Your task to perform on an android device: open app "Flipkart Online Shopping App" (install if not already installed) and enter user name: "fostered@gmail.com" and password: "negotiated" Image 0: 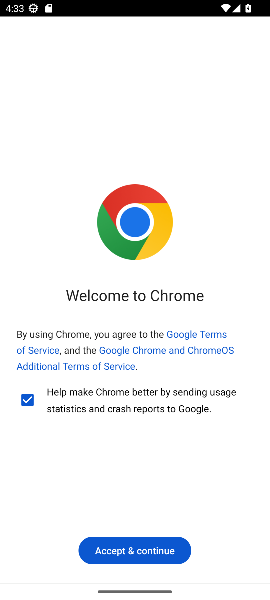
Step 0: press home button
Your task to perform on an android device: open app "Flipkart Online Shopping App" (install if not already installed) and enter user name: "fostered@gmail.com" and password: "negotiated" Image 1: 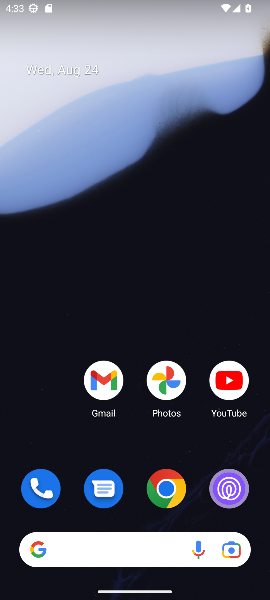
Step 1: drag from (138, 509) to (157, 55)
Your task to perform on an android device: open app "Flipkart Online Shopping App" (install if not already installed) and enter user name: "fostered@gmail.com" and password: "negotiated" Image 2: 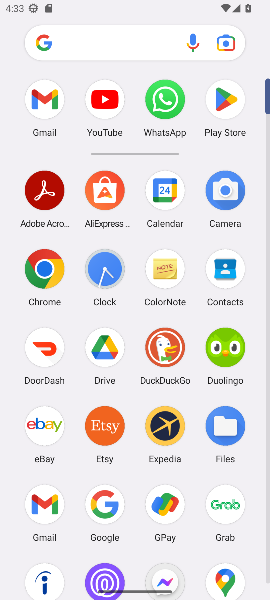
Step 2: click (223, 90)
Your task to perform on an android device: open app "Flipkart Online Shopping App" (install if not already installed) and enter user name: "fostered@gmail.com" and password: "negotiated" Image 3: 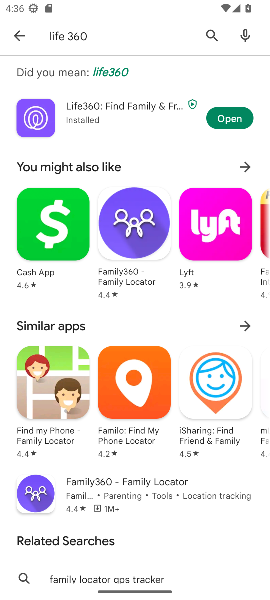
Step 3: click (216, 30)
Your task to perform on an android device: open app "Flipkart Online Shopping App" (install if not already installed) and enter user name: "fostered@gmail.com" and password: "negotiated" Image 4: 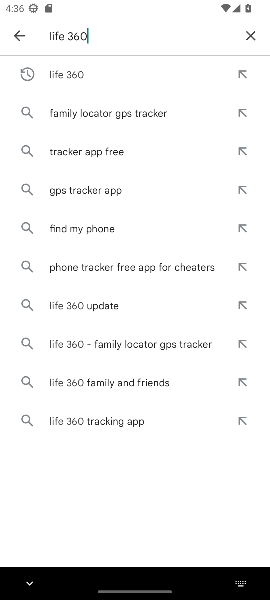
Step 4: click (244, 37)
Your task to perform on an android device: open app "Flipkart Online Shopping App" (install if not already installed) and enter user name: "fostered@gmail.com" and password: "negotiated" Image 5: 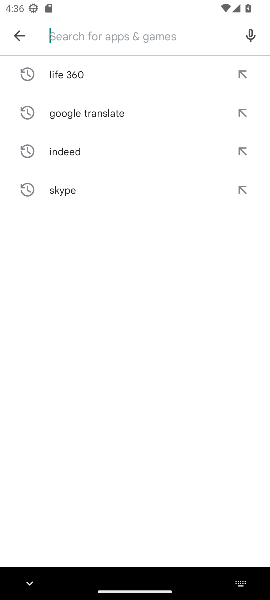
Step 5: type "flipkart"
Your task to perform on an android device: open app "Flipkart Online Shopping App" (install if not already installed) and enter user name: "fostered@gmail.com" and password: "negotiated" Image 6: 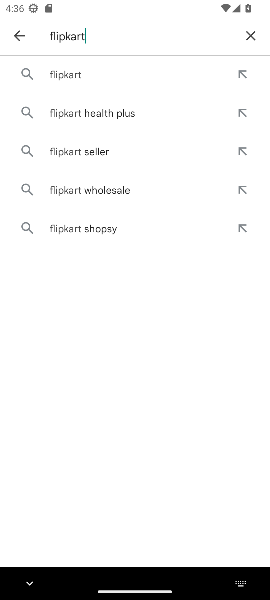
Step 6: click (90, 83)
Your task to perform on an android device: open app "Flipkart Online Shopping App" (install if not already installed) and enter user name: "fostered@gmail.com" and password: "negotiated" Image 7: 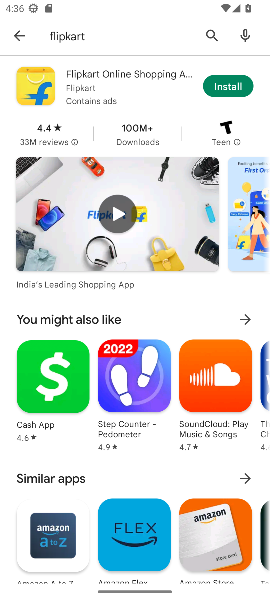
Step 7: click (213, 90)
Your task to perform on an android device: open app "Flipkart Online Shopping App" (install if not already installed) and enter user name: "fostered@gmail.com" and password: "negotiated" Image 8: 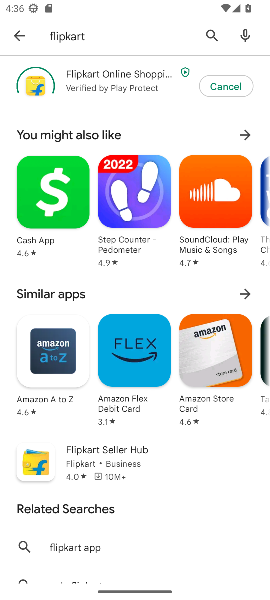
Step 8: task complete